Your task to perform on an android device: turn off picture-in-picture Image 0: 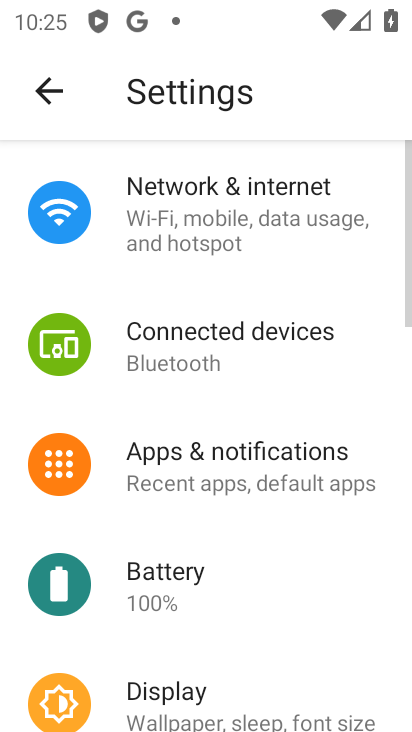
Step 0: press home button
Your task to perform on an android device: turn off picture-in-picture Image 1: 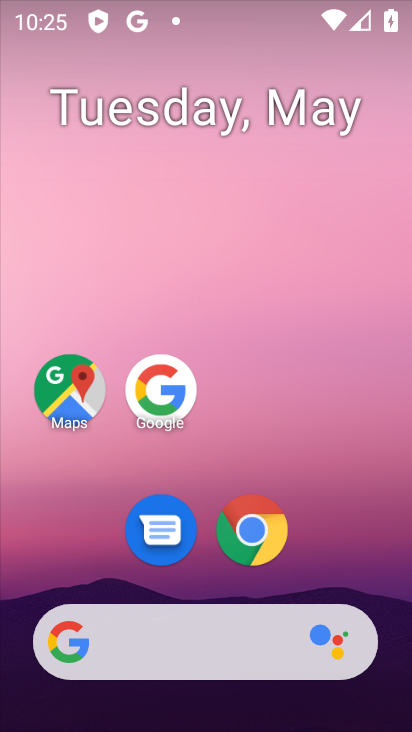
Step 1: click (258, 533)
Your task to perform on an android device: turn off picture-in-picture Image 2: 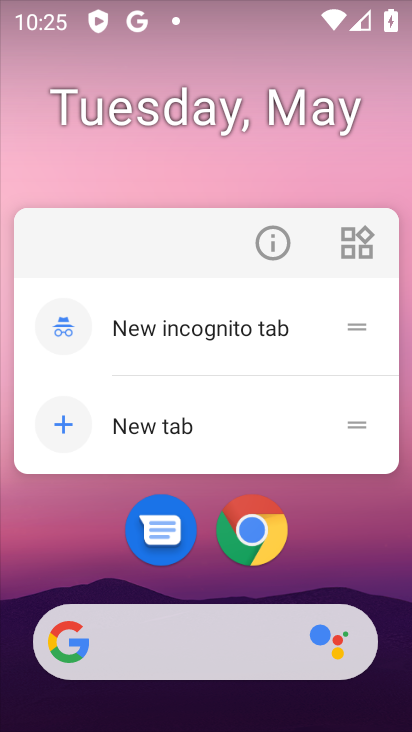
Step 2: click (284, 241)
Your task to perform on an android device: turn off picture-in-picture Image 3: 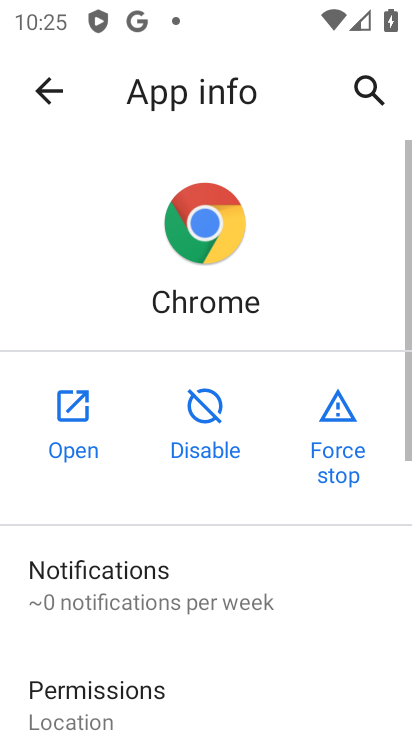
Step 3: drag from (226, 643) to (280, 240)
Your task to perform on an android device: turn off picture-in-picture Image 4: 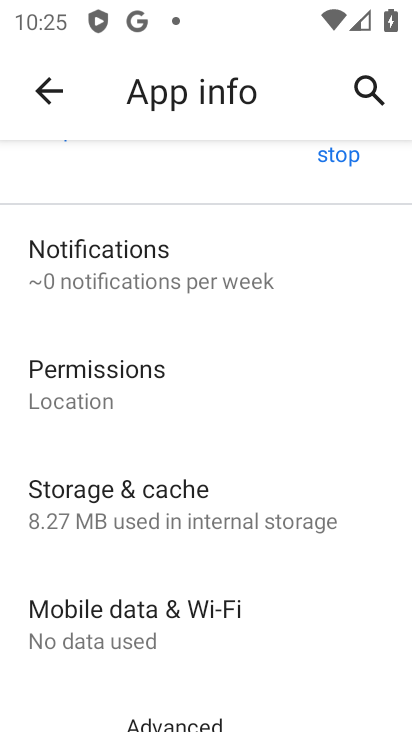
Step 4: drag from (194, 676) to (246, 134)
Your task to perform on an android device: turn off picture-in-picture Image 5: 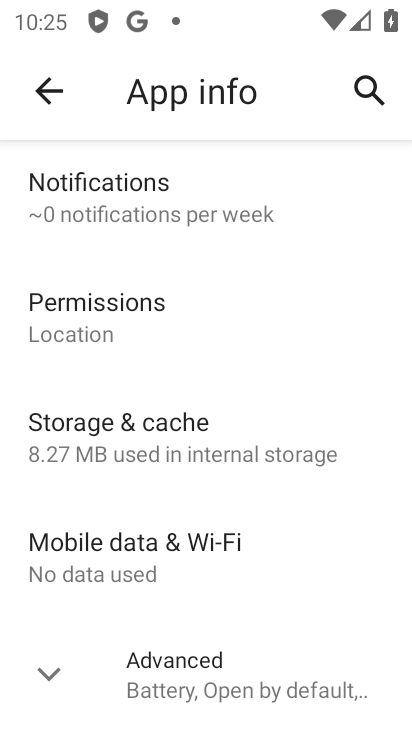
Step 5: click (180, 670)
Your task to perform on an android device: turn off picture-in-picture Image 6: 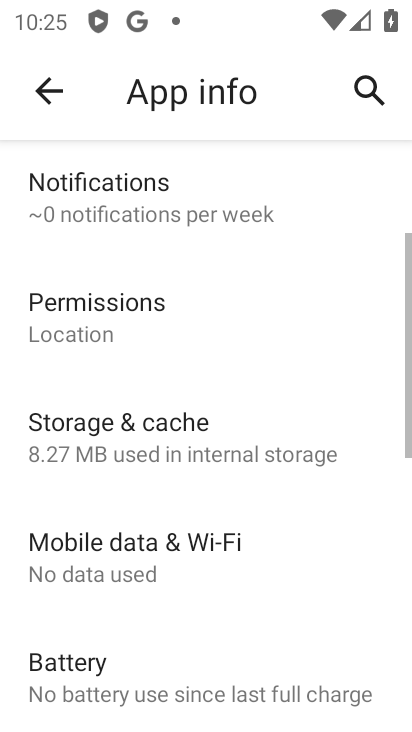
Step 6: drag from (179, 661) to (220, 125)
Your task to perform on an android device: turn off picture-in-picture Image 7: 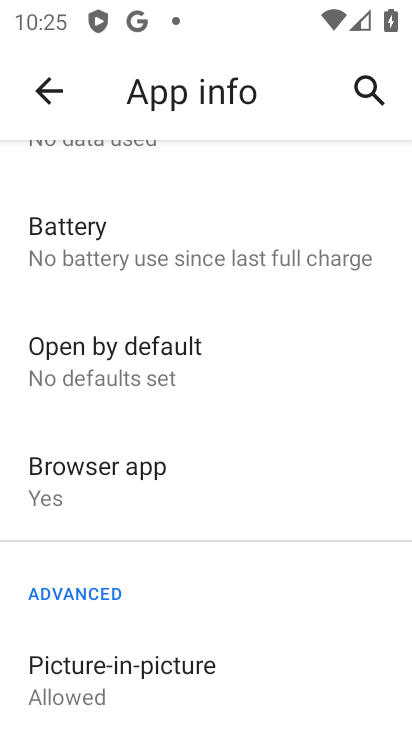
Step 7: click (243, 694)
Your task to perform on an android device: turn off picture-in-picture Image 8: 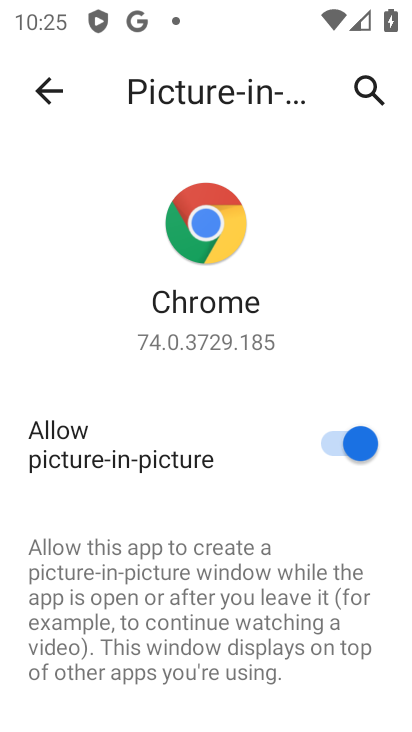
Step 8: click (353, 459)
Your task to perform on an android device: turn off picture-in-picture Image 9: 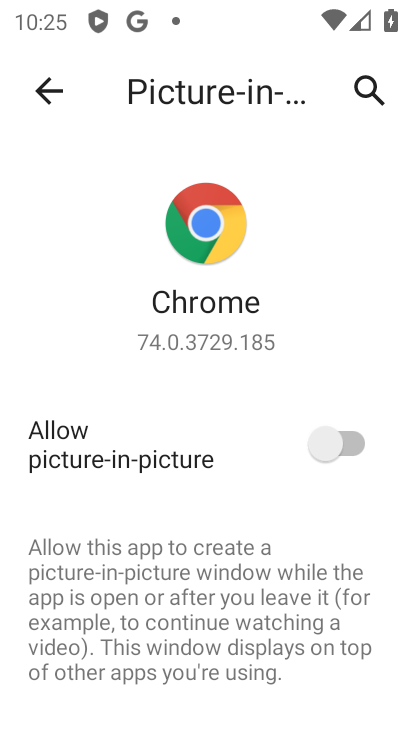
Step 9: task complete